Your task to perform on an android device: Open Yahoo.com Image 0: 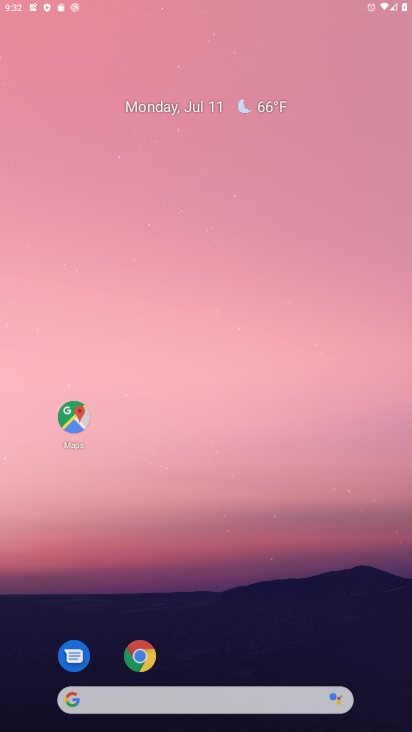
Step 0: press home button
Your task to perform on an android device: Open Yahoo.com Image 1: 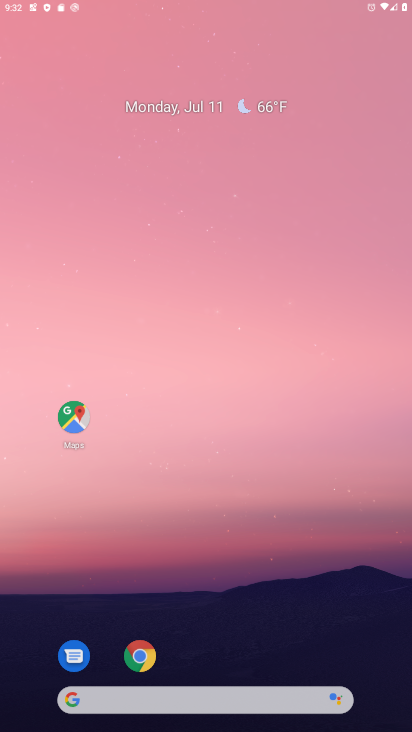
Step 1: click (288, 96)
Your task to perform on an android device: Open Yahoo.com Image 2: 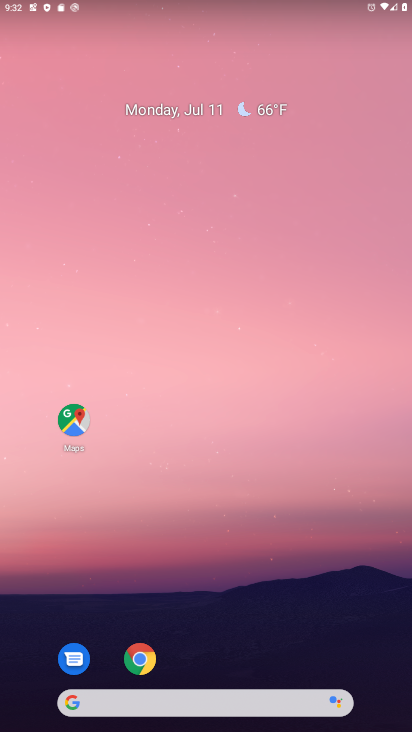
Step 2: drag from (339, 623) to (322, 189)
Your task to perform on an android device: Open Yahoo.com Image 3: 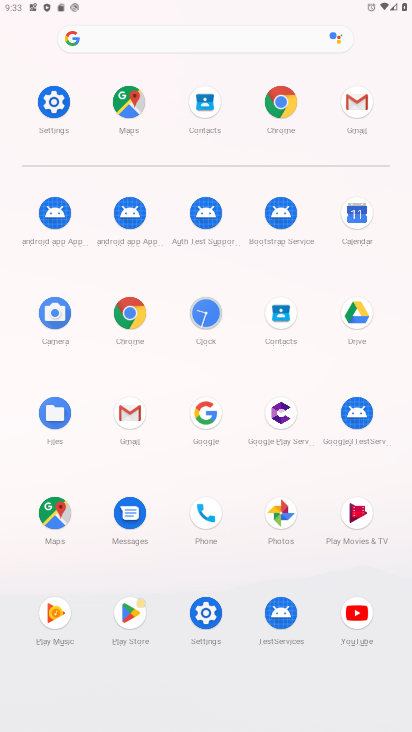
Step 3: click (137, 321)
Your task to perform on an android device: Open Yahoo.com Image 4: 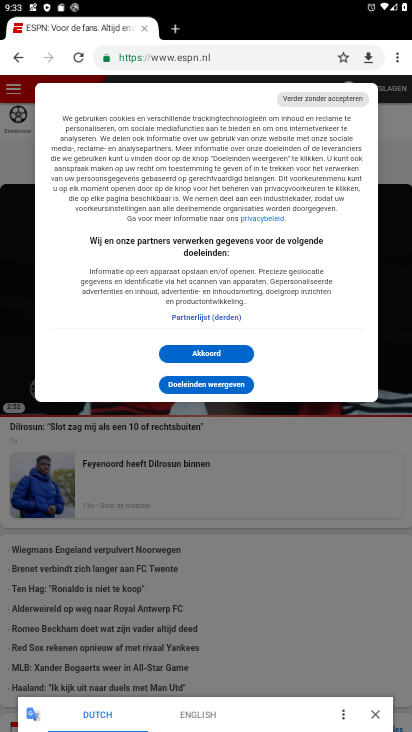
Step 4: click (191, 56)
Your task to perform on an android device: Open Yahoo.com Image 5: 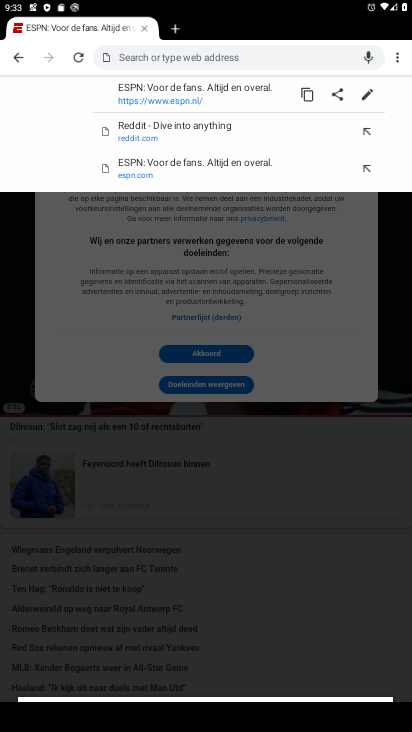
Step 5: type "yahoo.com"
Your task to perform on an android device: Open Yahoo.com Image 6: 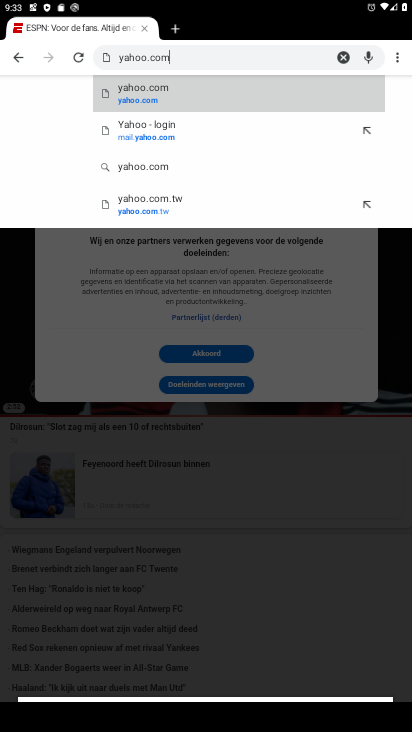
Step 6: click (179, 88)
Your task to perform on an android device: Open Yahoo.com Image 7: 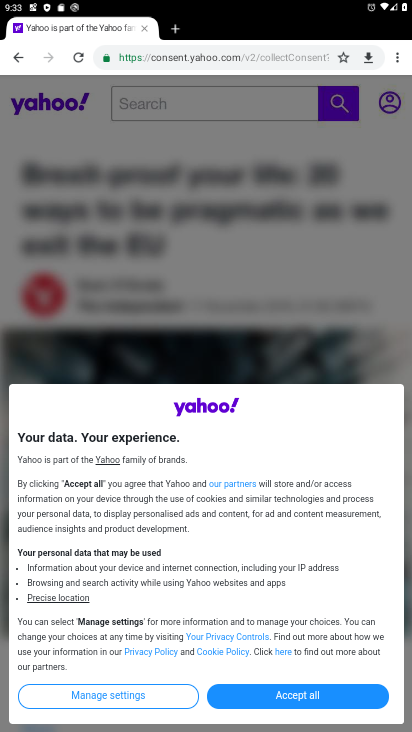
Step 7: task complete